Your task to perform on an android device: Add apple airpods pro to the cart on costco.com Image 0: 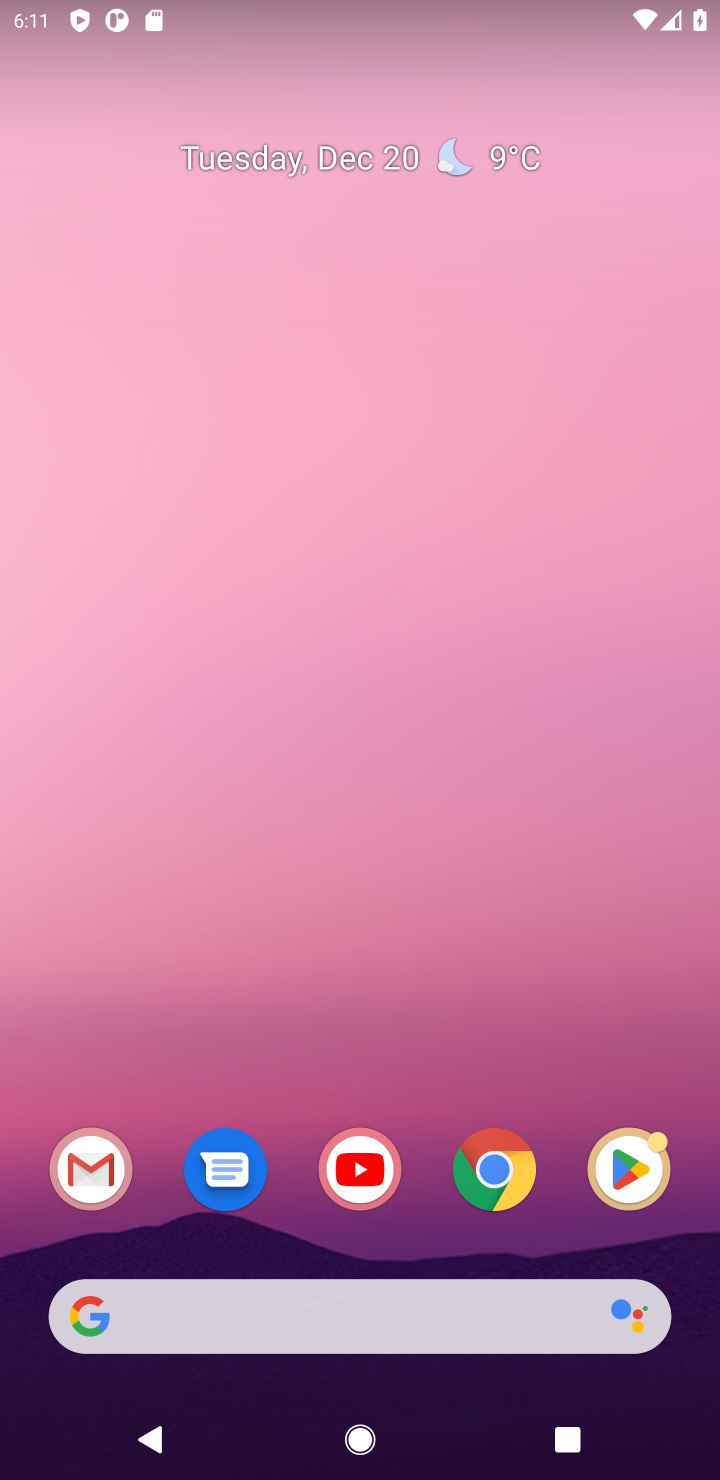
Step 0: click (478, 1208)
Your task to perform on an android device: Add apple airpods pro to the cart on costco.com Image 1: 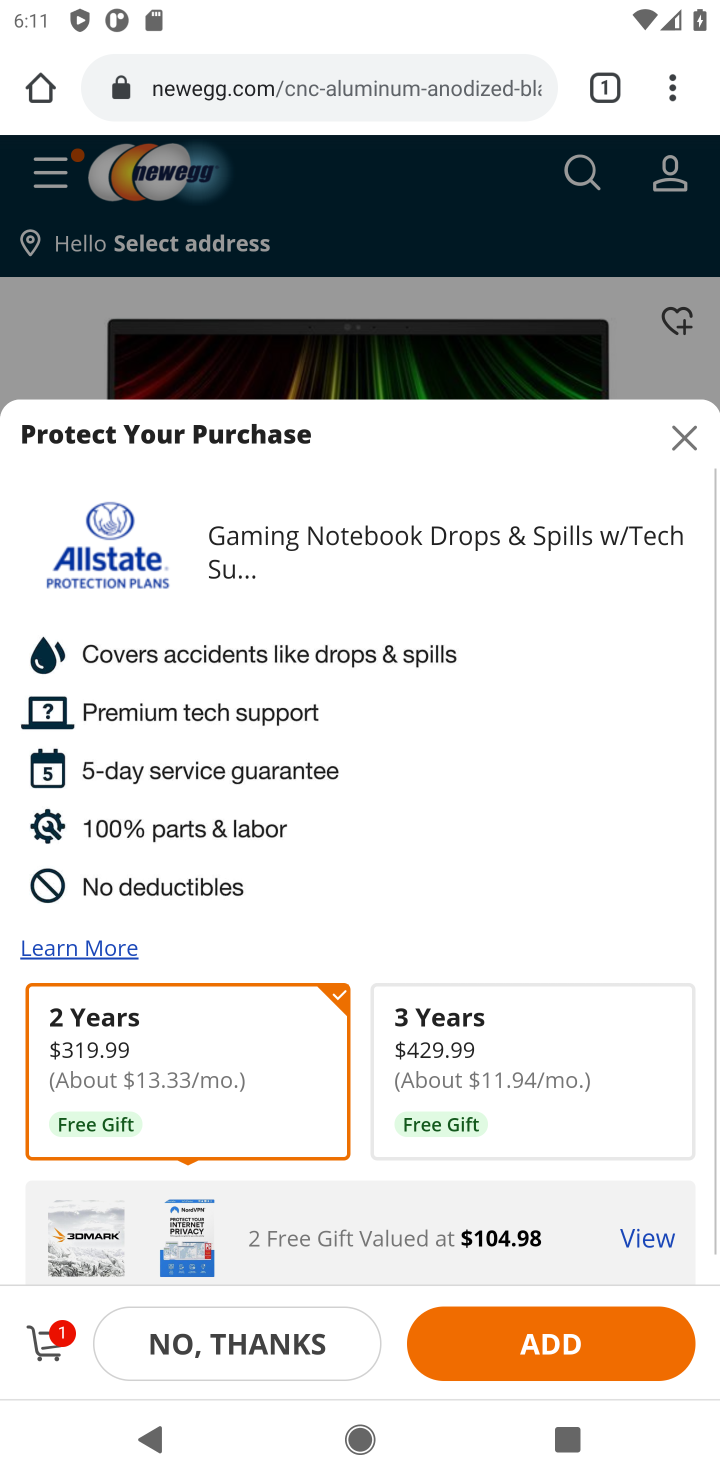
Step 1: click (313, 1319)
Your task to perform on an android device: Add apple airpods pro to the cart on costco.com Image 2: 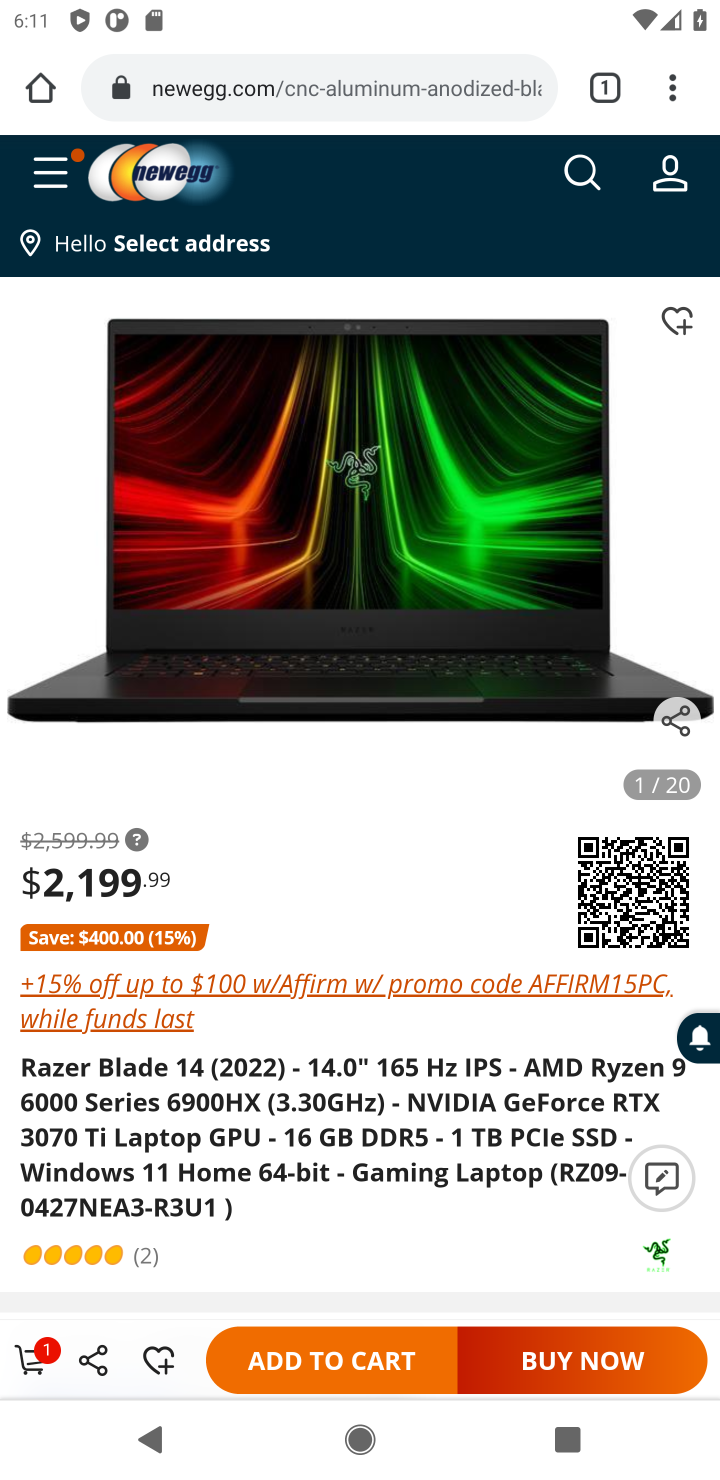
Step 2: click (286, 95)
Your task to perform on an android device: Add apple airpods pro to the cart on costco.com Image 3: 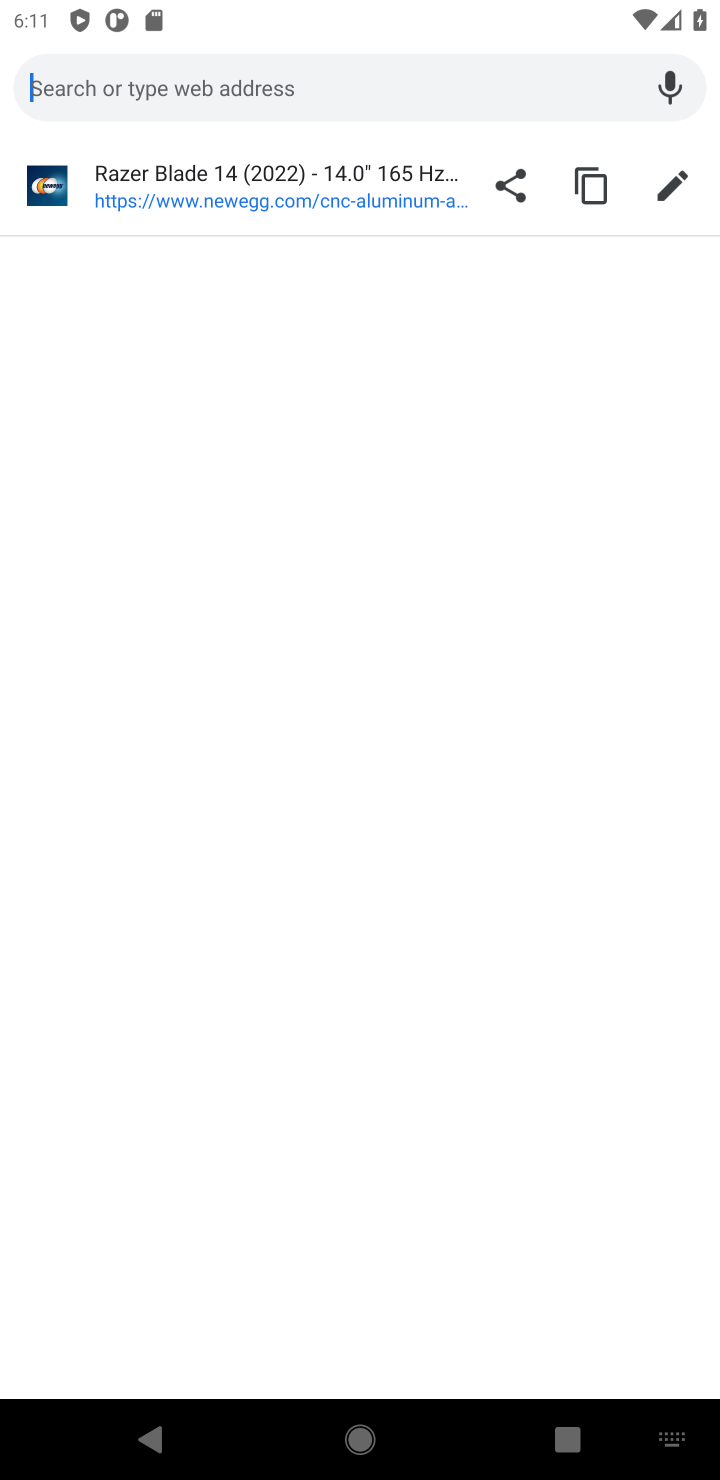
Step 3: type "costco"
Your task to perform on an android device: Add apple airpods pro to the cart on costco.com Image 4: 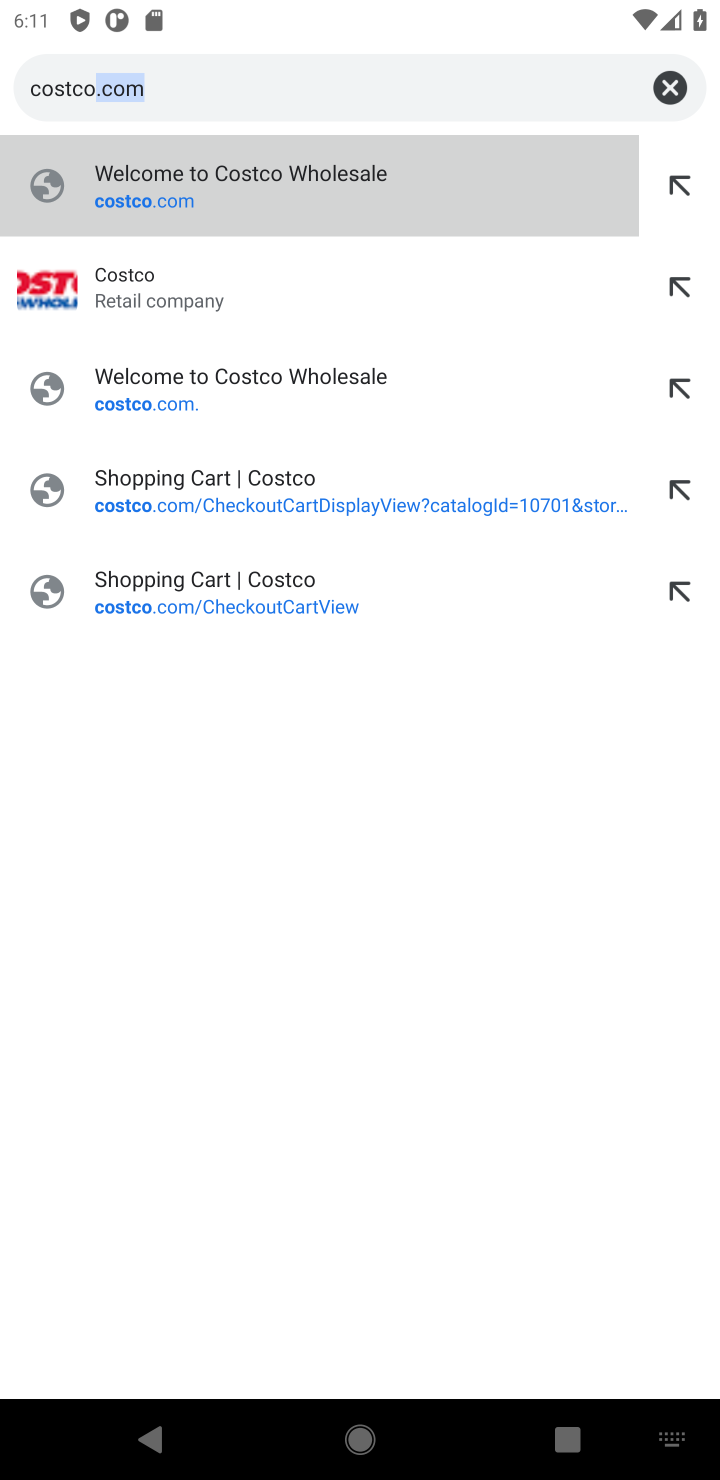
Step 4: click (114, 272)
Your task to perform on an android device: Add apple airpods pro to the cart on costco.com Image 5: 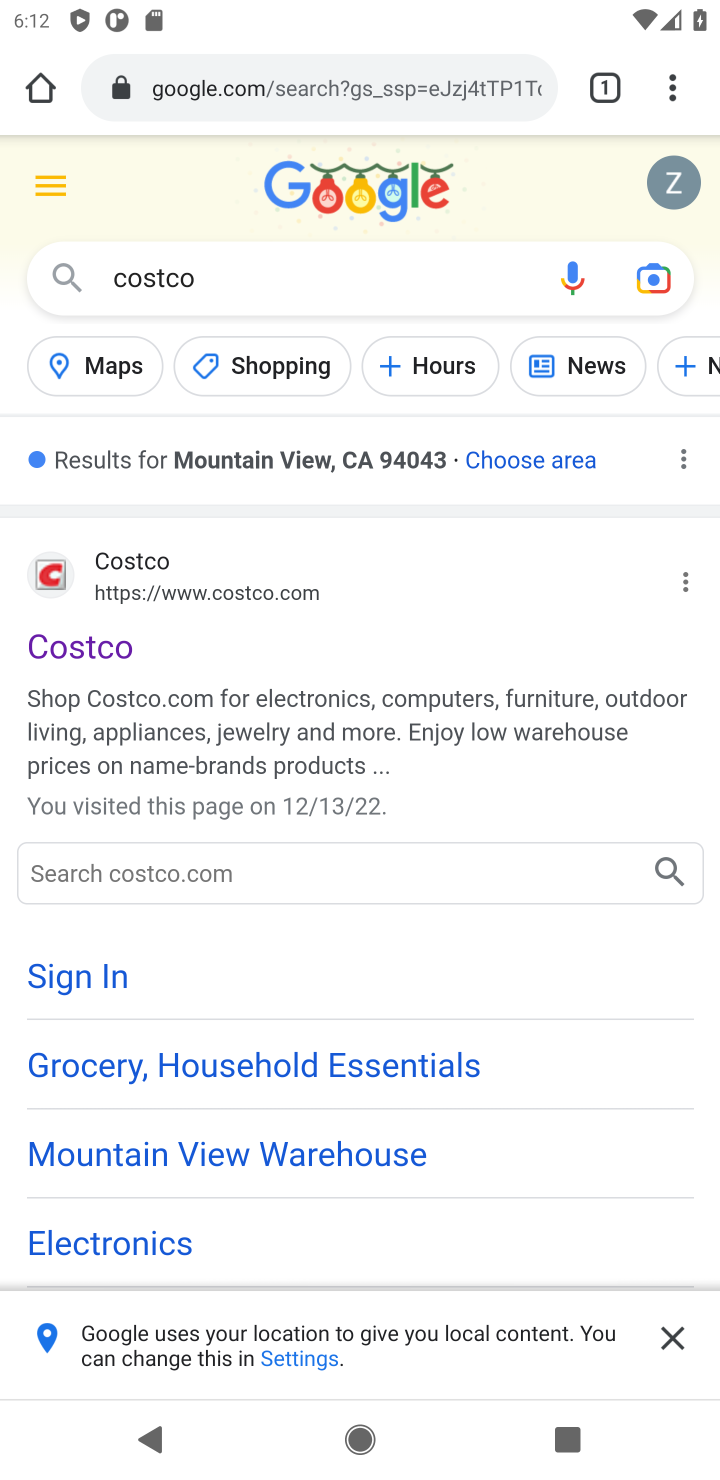
Step 5: click (121, 628)
Your task to perform on an android device: Add apple airpods pro to the cart on costco.com Image 6: 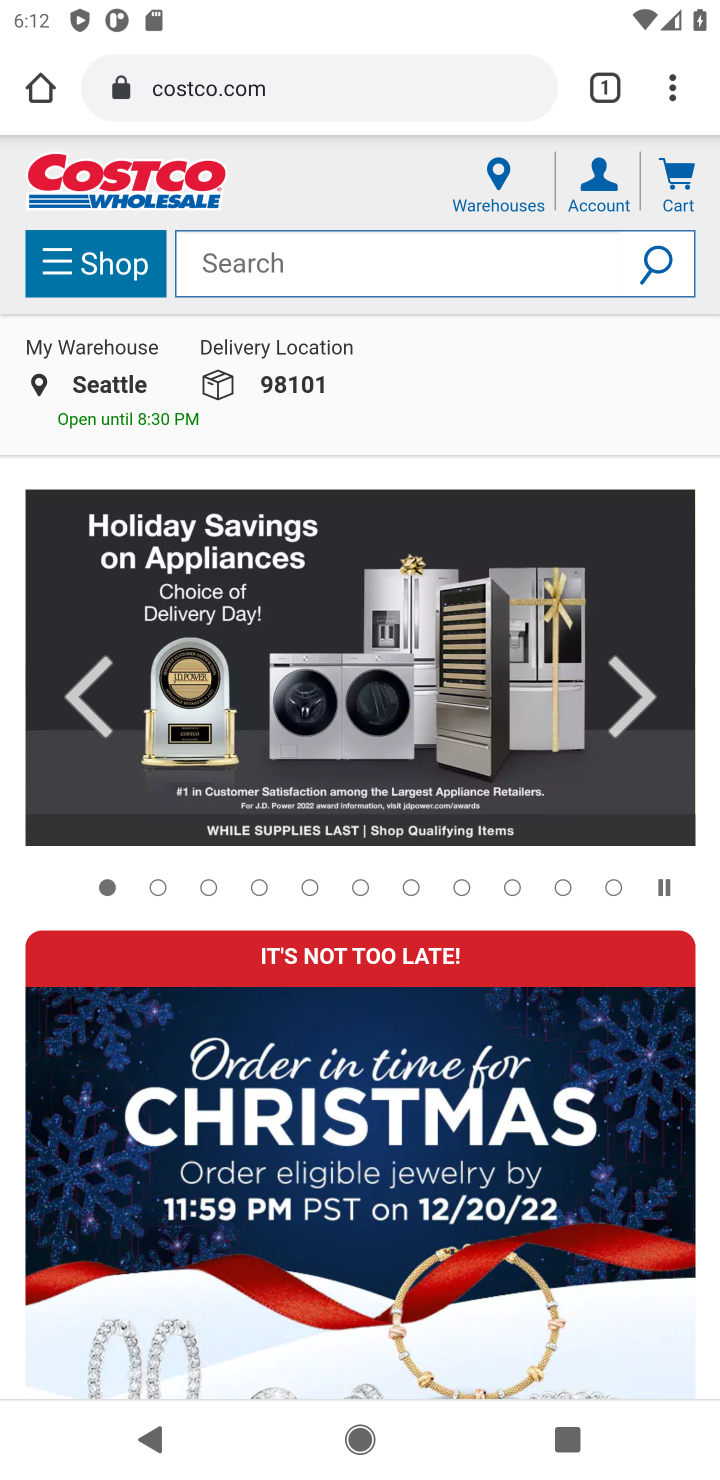
Step 6: click (361, 263)
Your task to perform on an android device: Add apple airpods pro to the cart on costco.com Image 7: 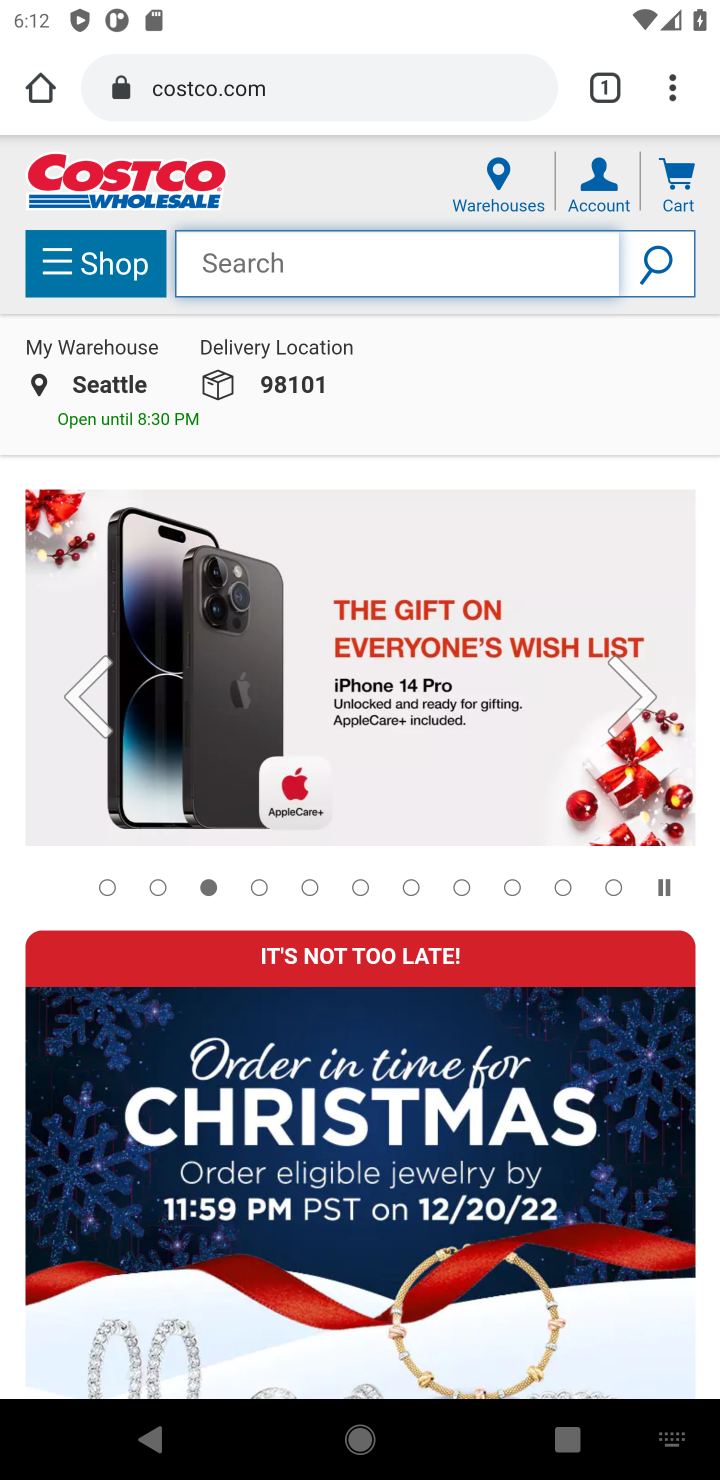
Step 7: type "apple airpod"
Your task to perform on an android device: Add apple airpods pro to the cart on costco.com Image 8: 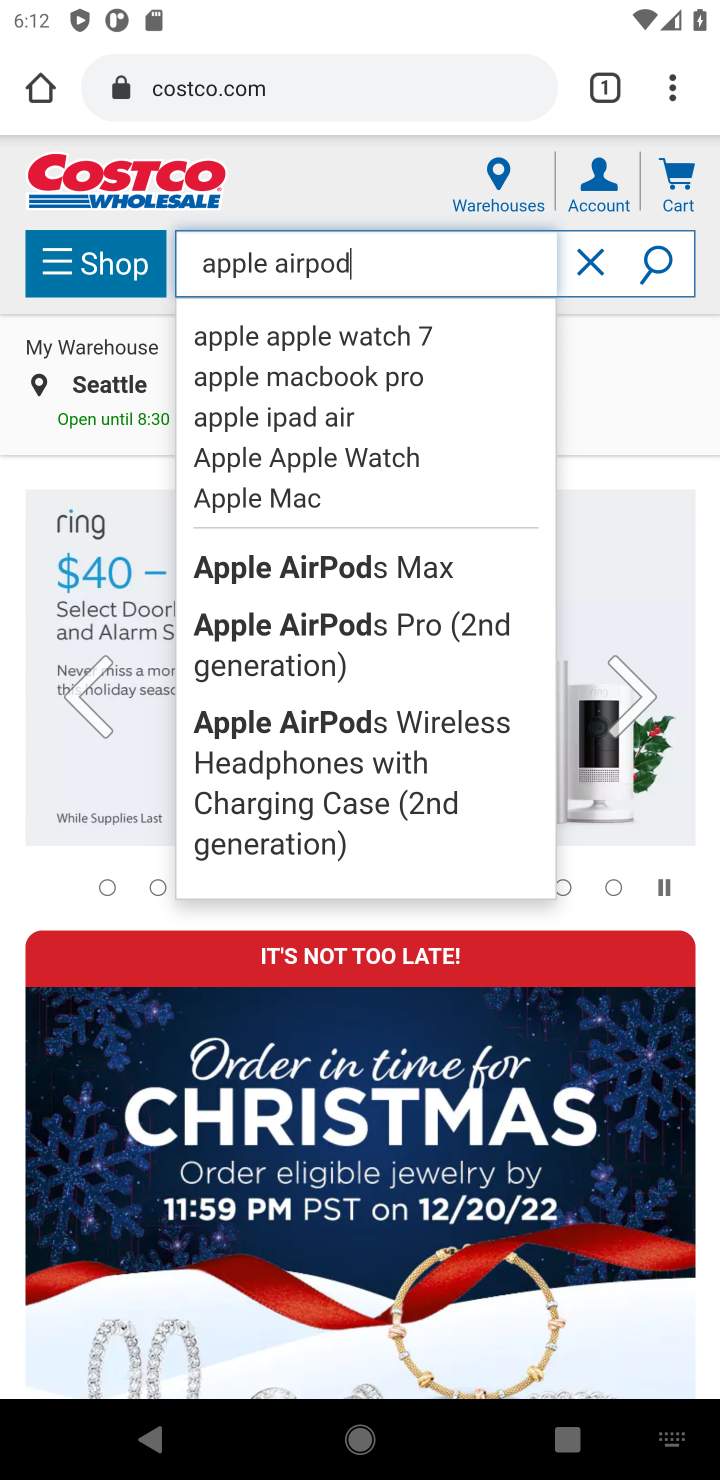
Step 8: click (653, 251)
Your task to perform on an android device: Add apple airpods pro to the cart on costco.com Image 9: 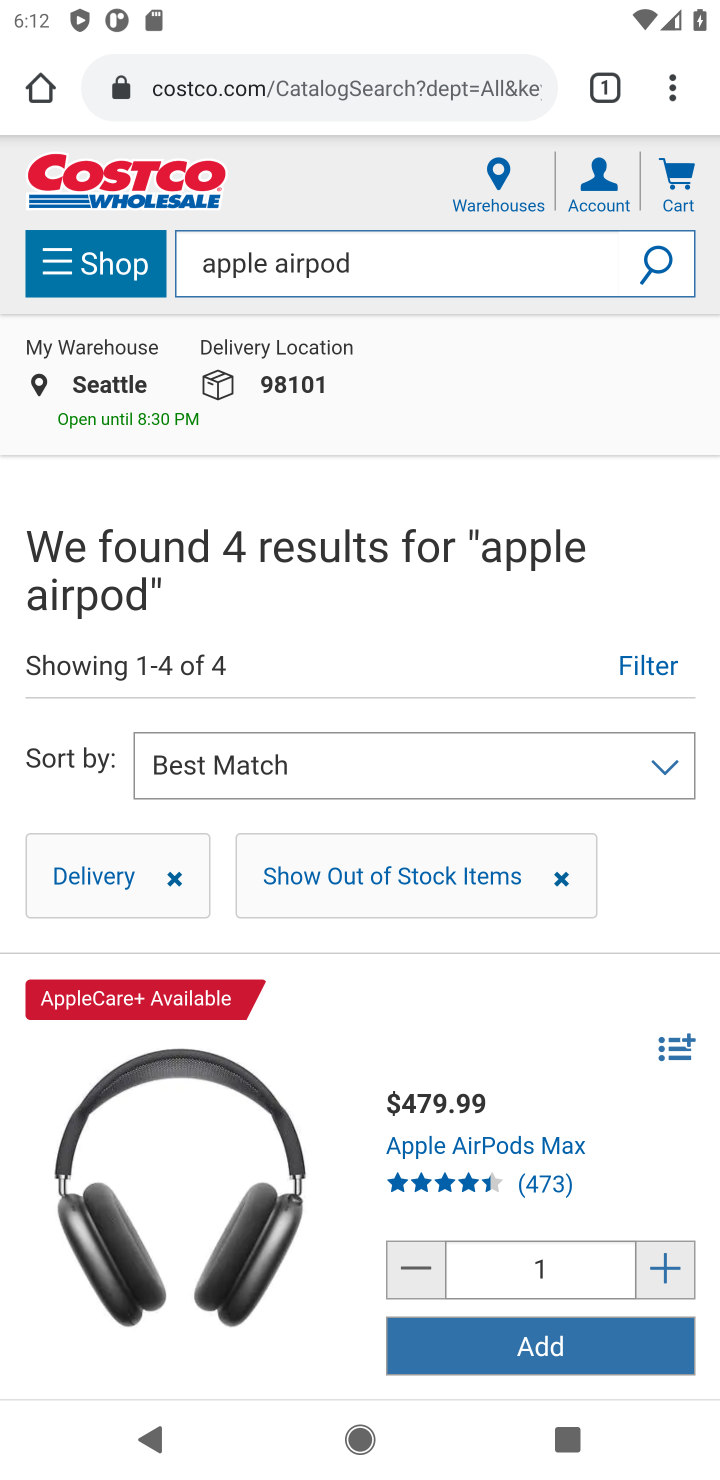
Step 9: click (608, 1347)
Your task to perform on an android device: Add apple airpods pro to the cart on costco.com Image 10: 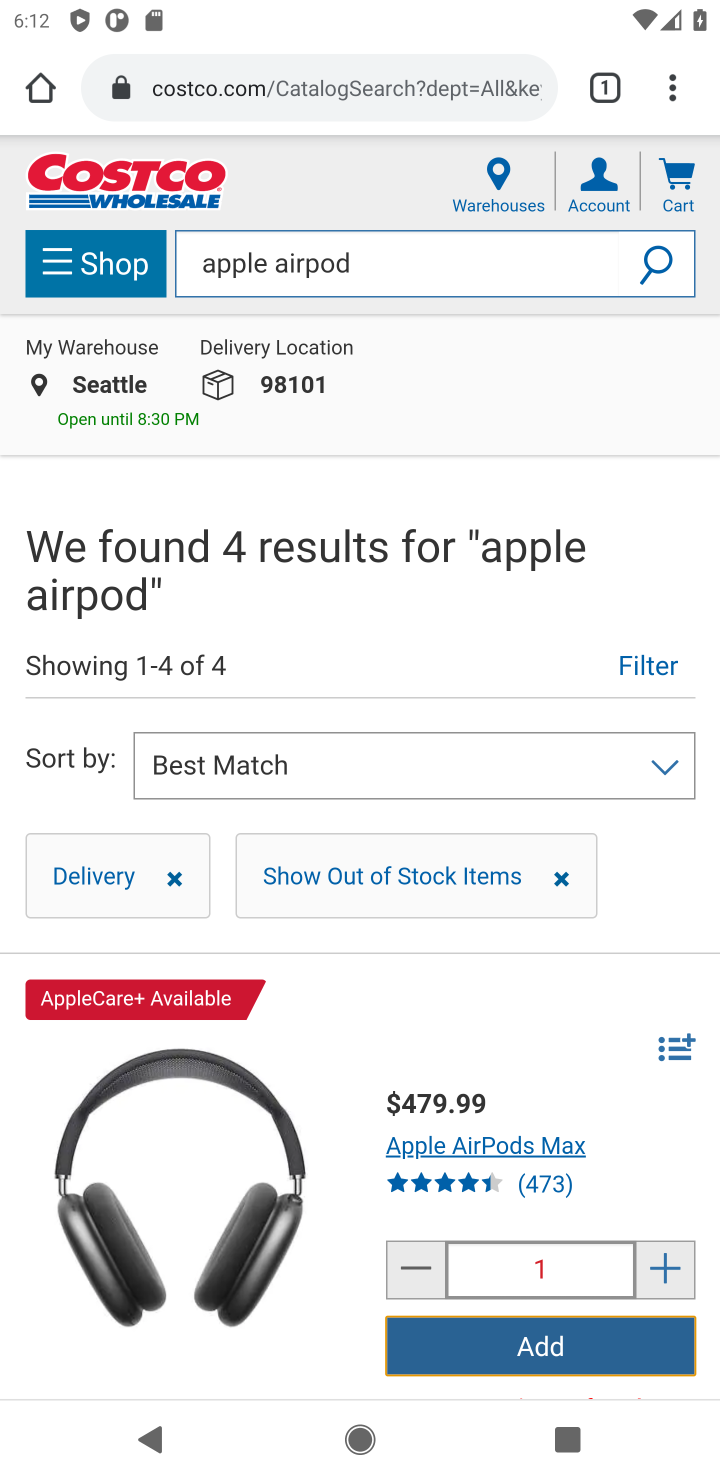
Step 10: task complete